Your task to perform on an android device: Go to ESPN.com Image 0: 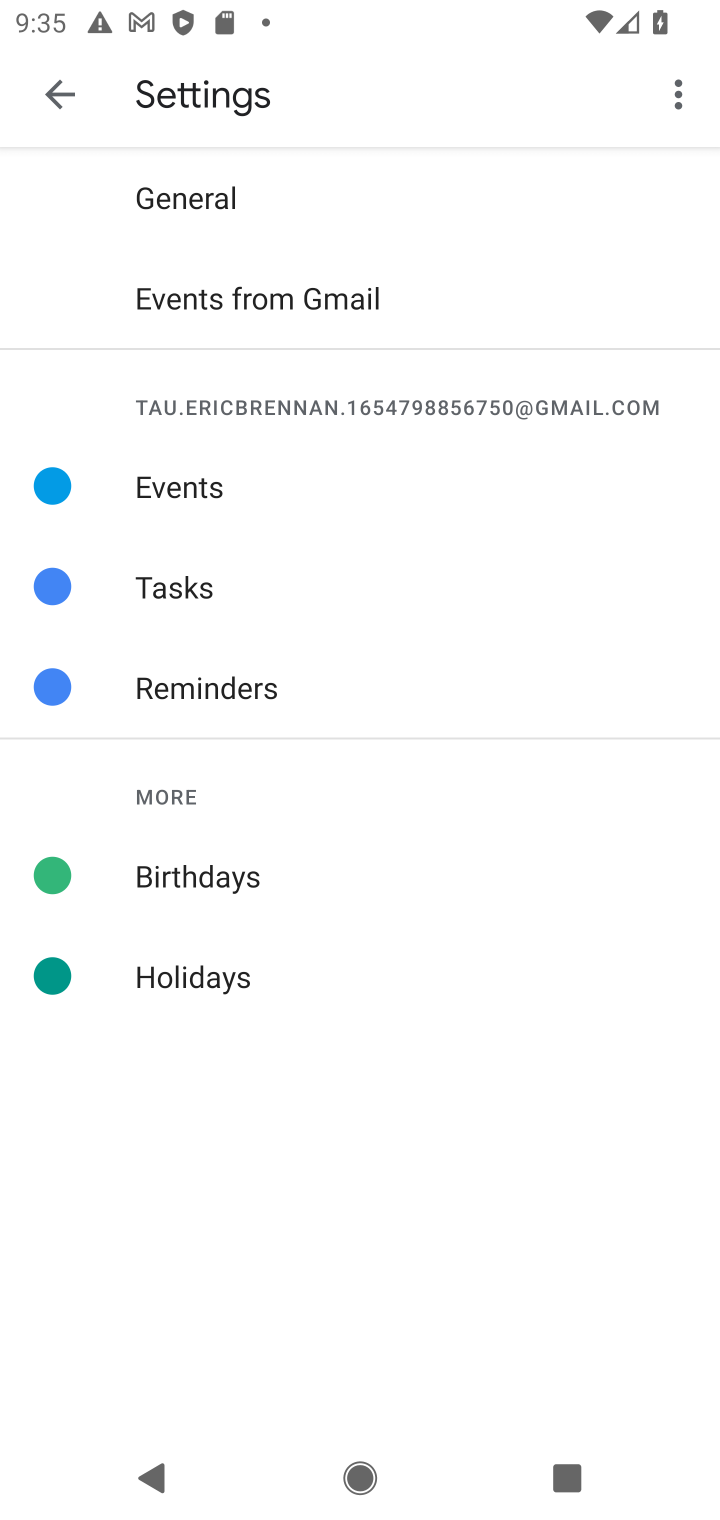
Step 0: press home button
Your task to perform on an android device: Go to ESPN.com Image 1: 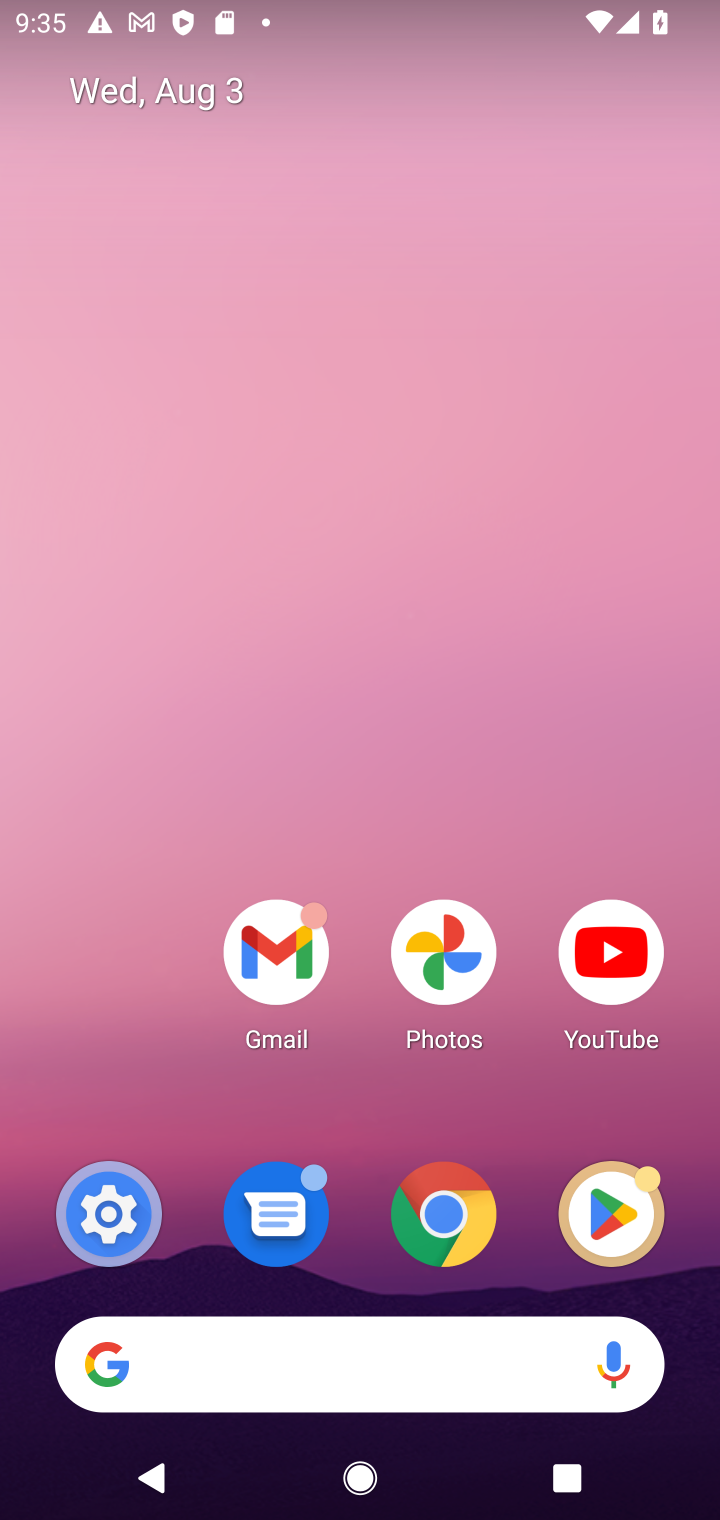
Step 1: click (429, 1213)
Your task to perform on an android device: Go to ESPN.com Image 2: 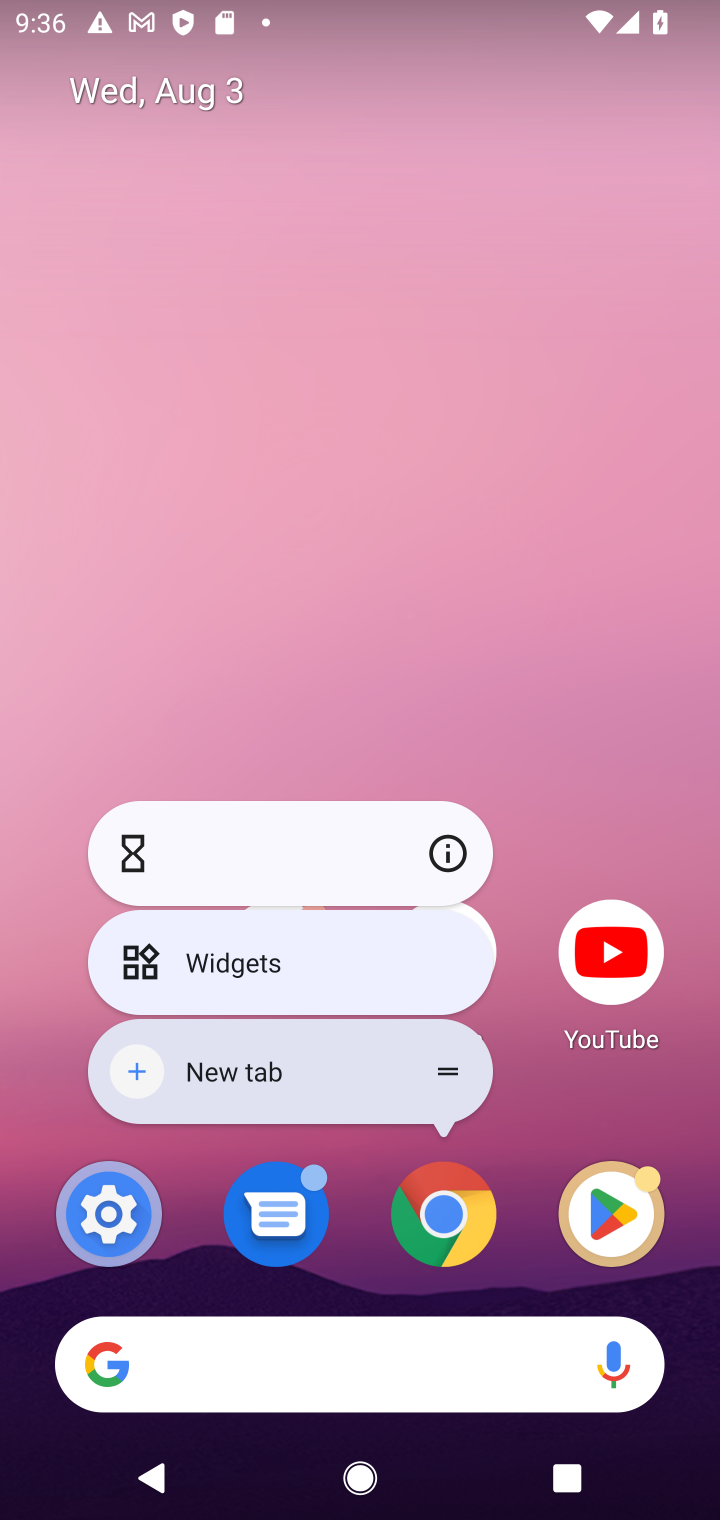
Step 2: click (436, 1210)
Your task to perform on an android device: Go to ESPN.com Image 3: 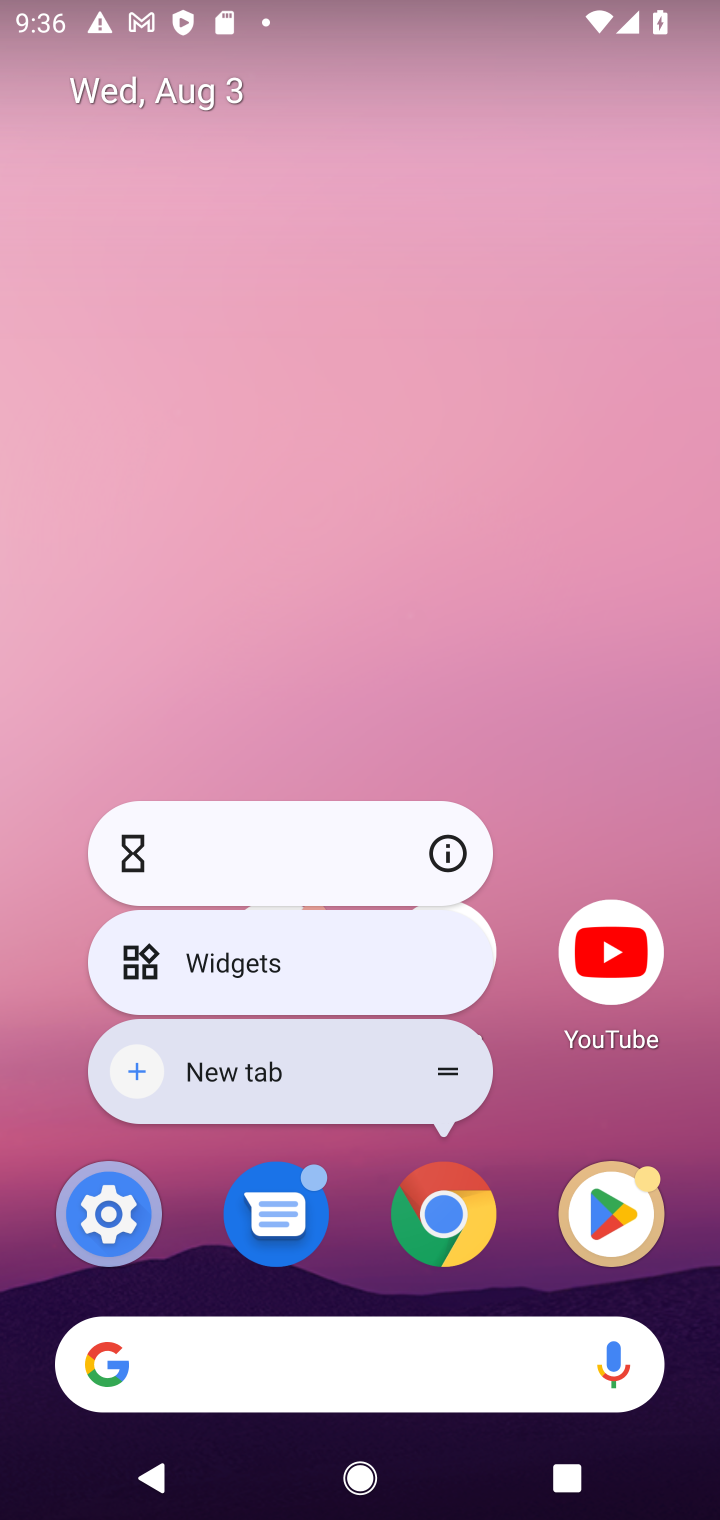
Step 3: click (436, 1210)
Your task to perform on an android device: Go to ESPN.com Image 4: 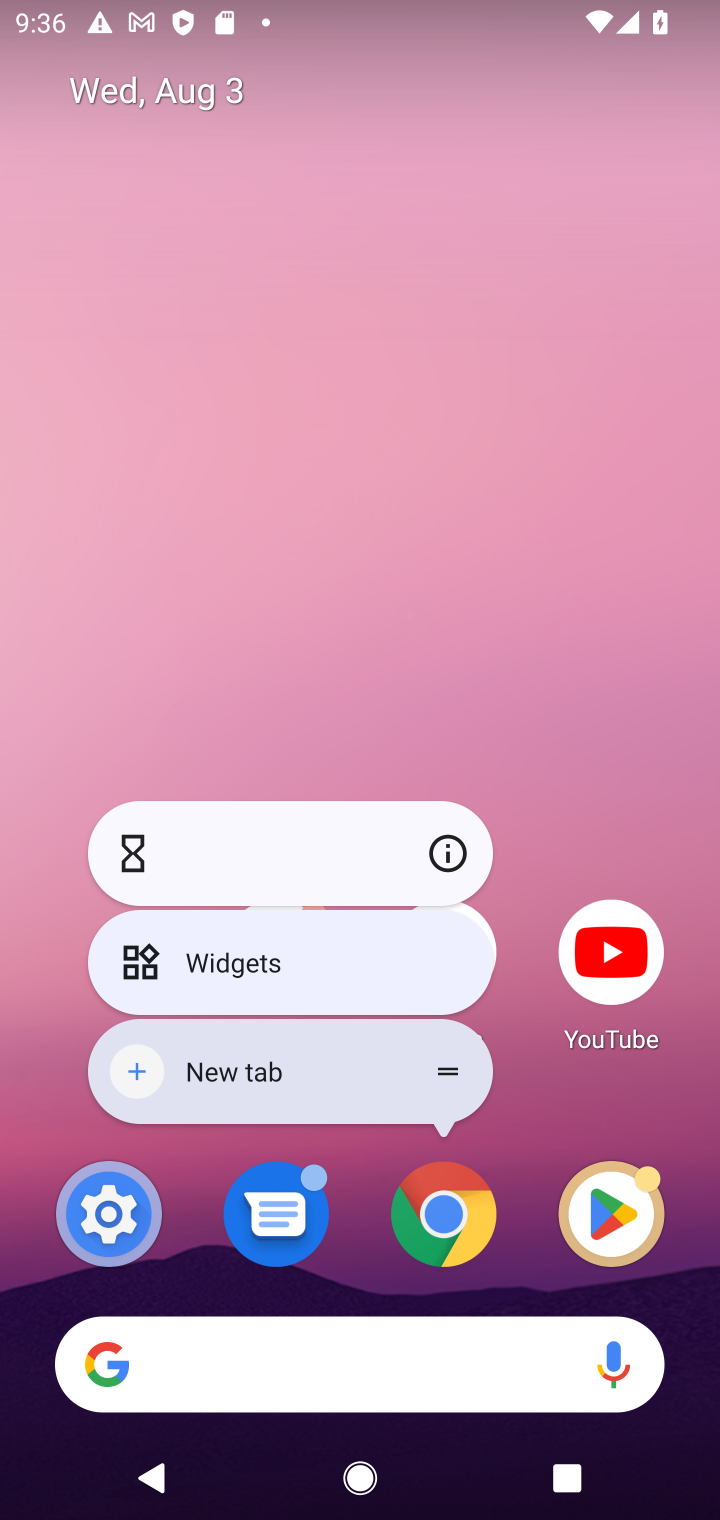
Step 4: click (436, 1210)
Your task to perform on an android device: Go to ESPN.com Image 5: 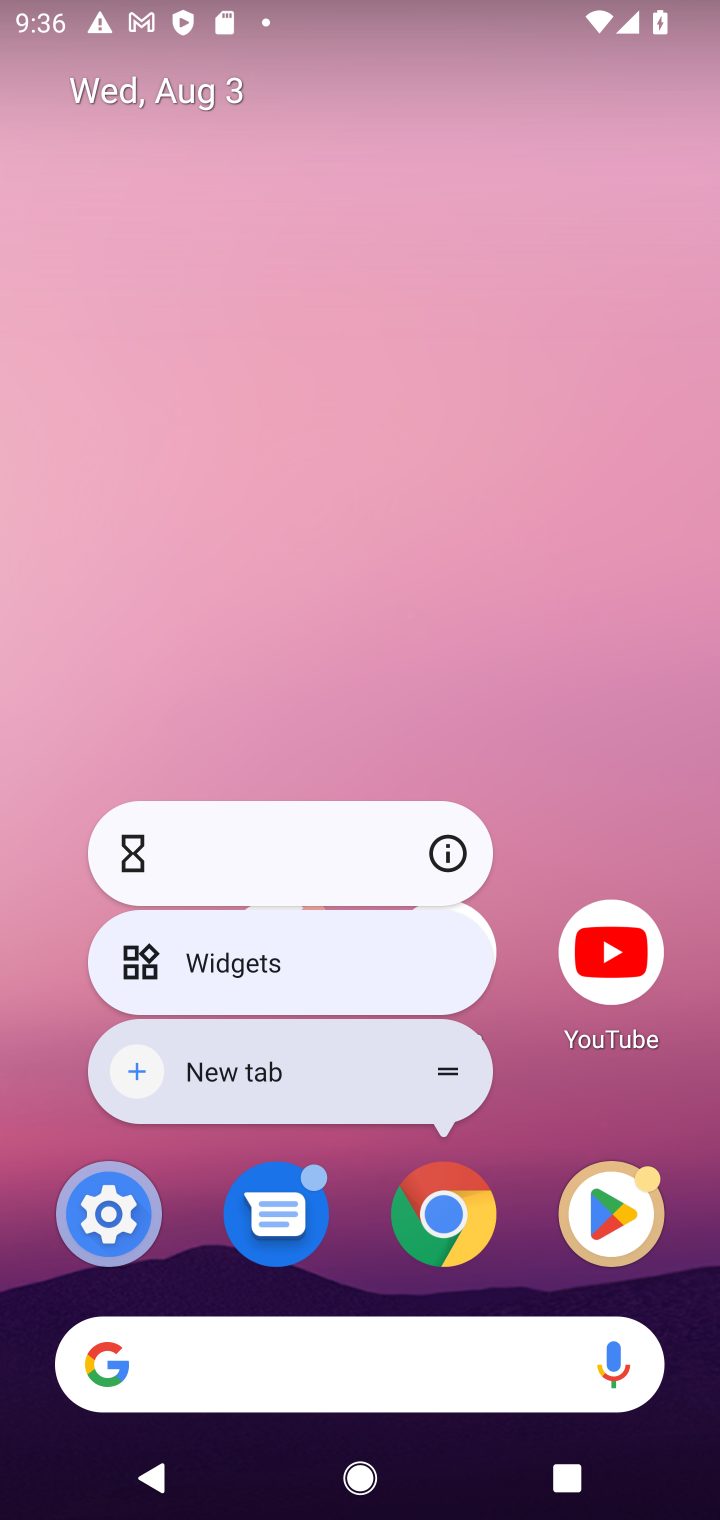
Step 5: click (454, 1223)
Your task to perform on an android device: Go to ESPN.com Image 6: 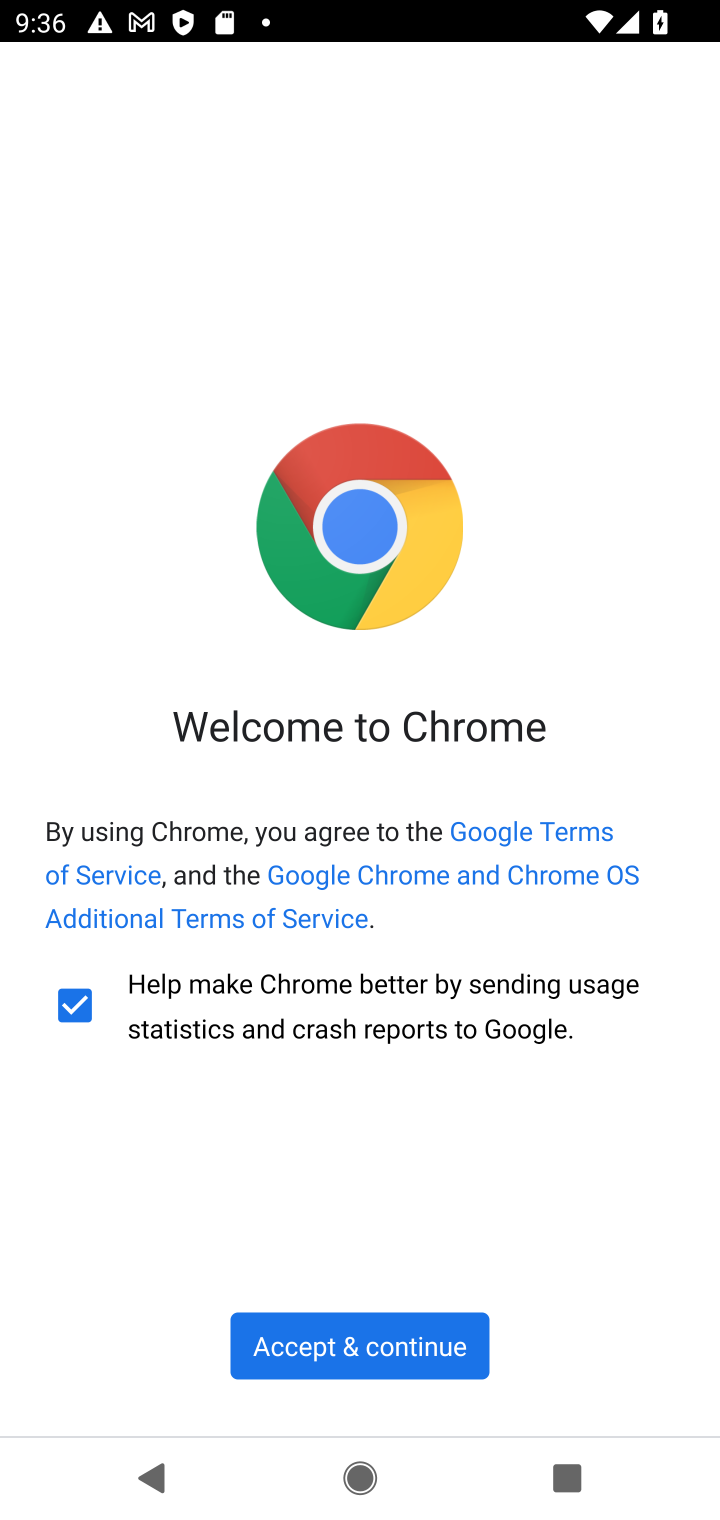
Step 6: click (403, 1328)
Your task to perform on an android device: Go to ESPN.com Image 7: 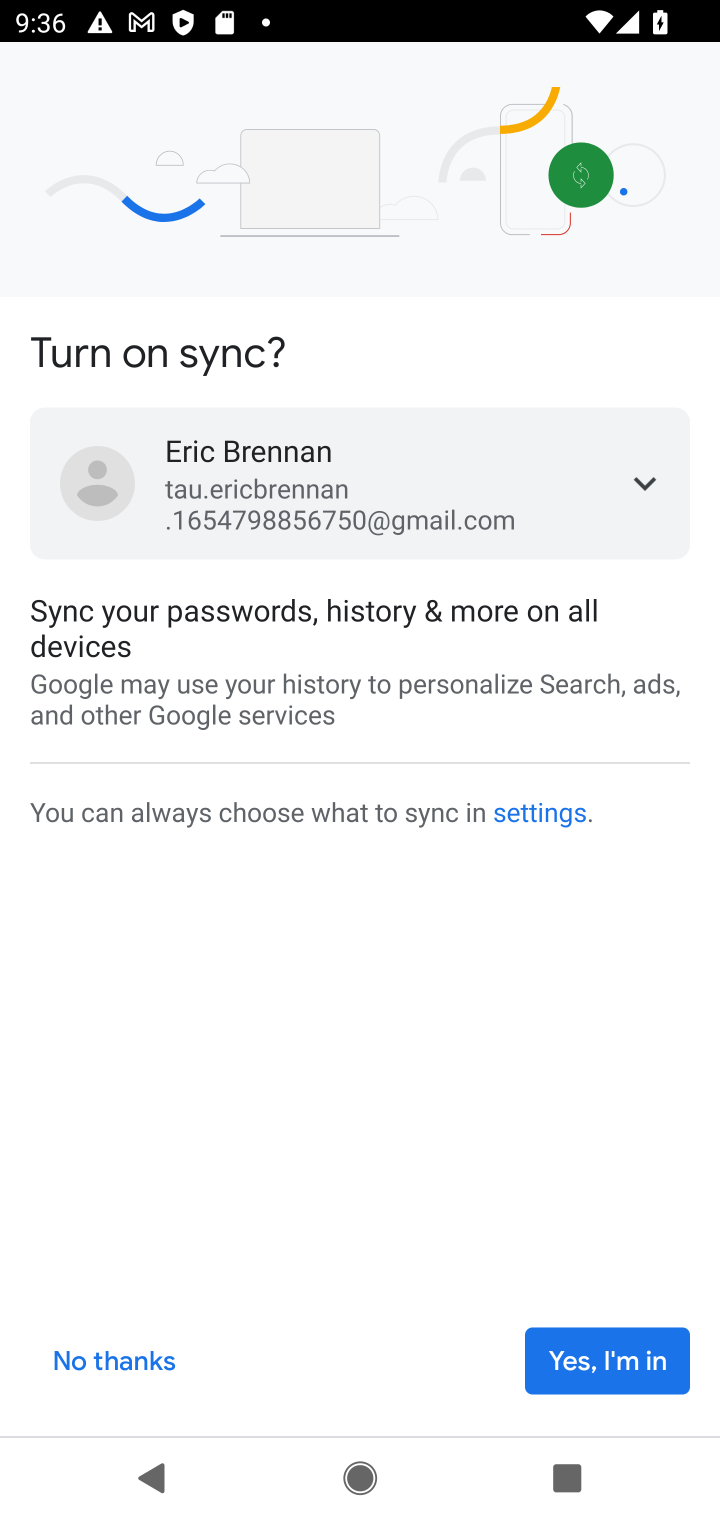
Step 7: click (623, 1345)
Your task to perform on an android device: Go to ESPN.com Image 8: 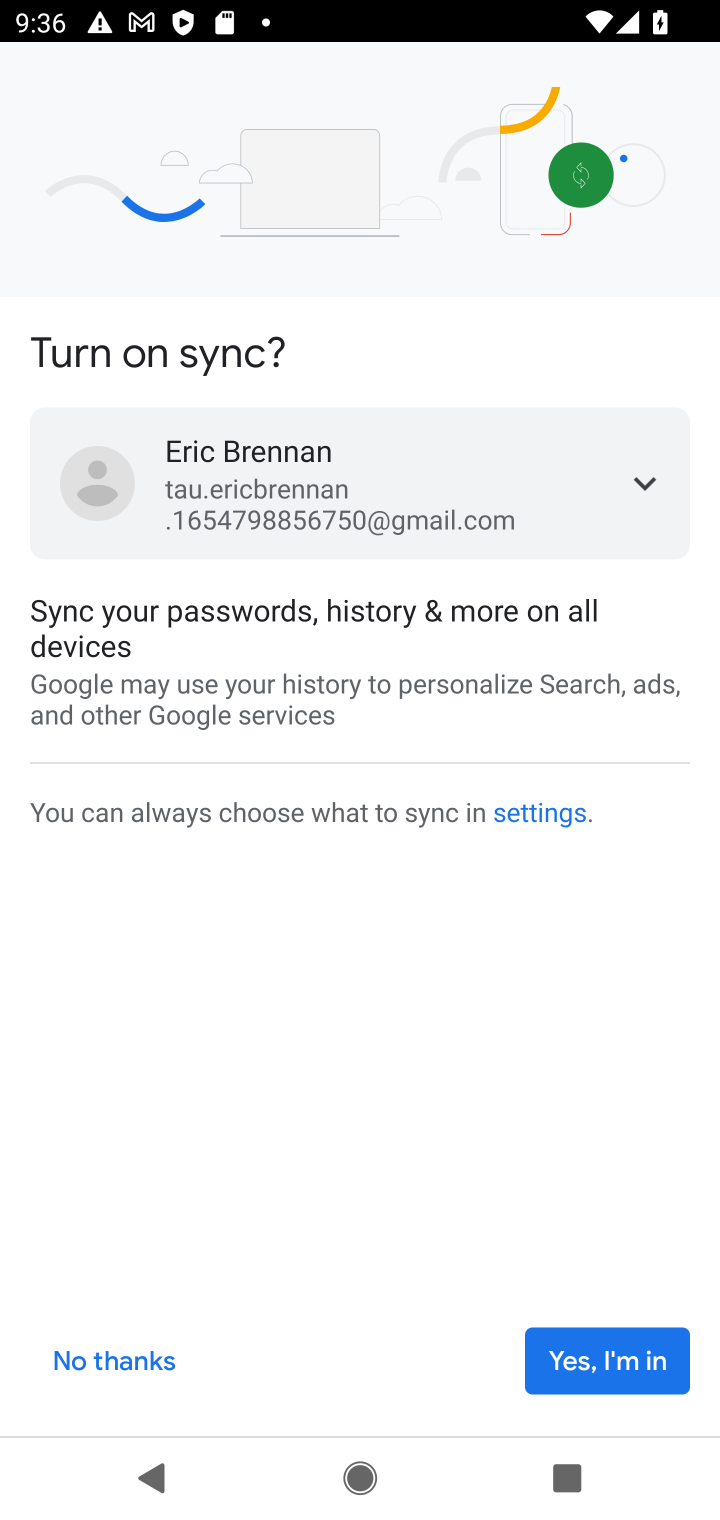
Step 8: click (623, 1345)
Your task to perform on an android device: Go to ESPN.com Image 9: 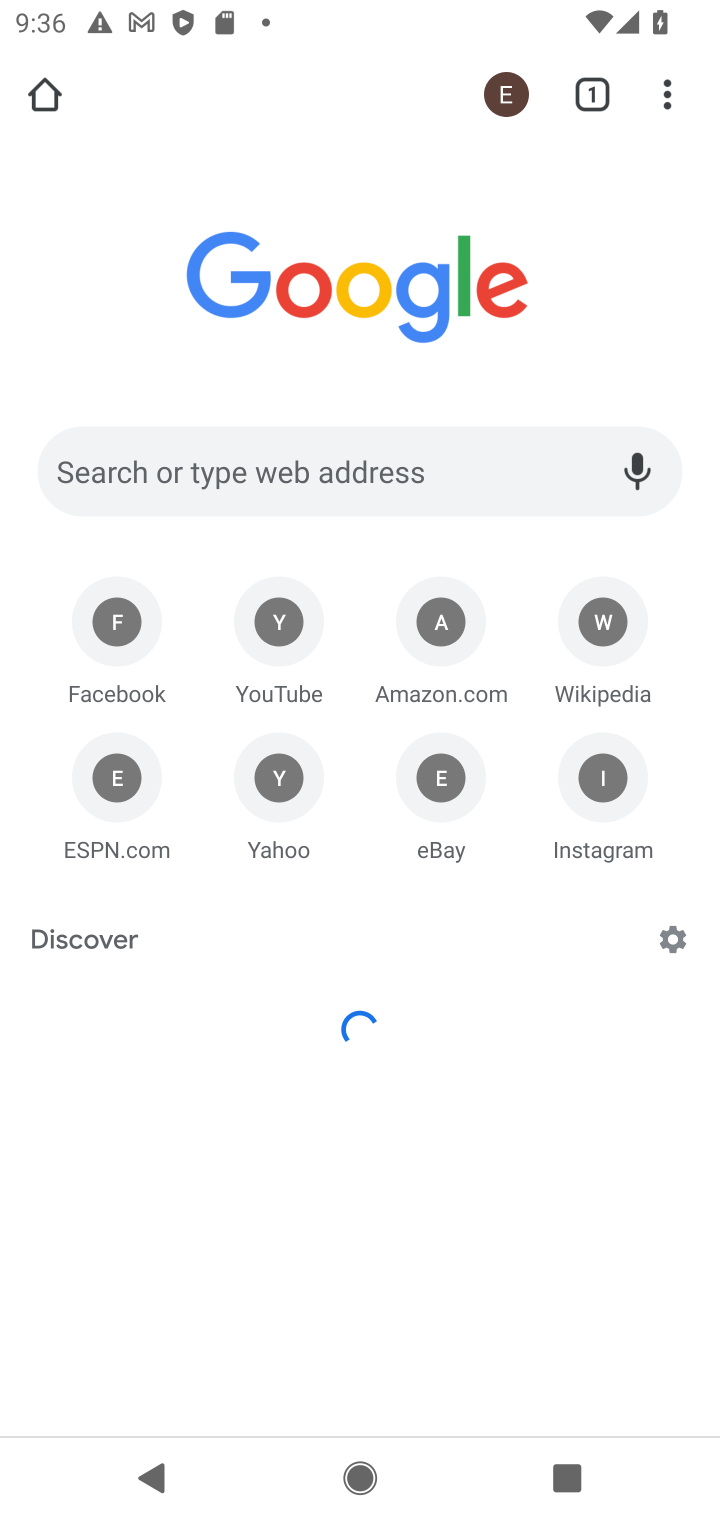
Step 9: click (331, 458)
Your task to perform on an android device: Go to ESPN.com Image 10: 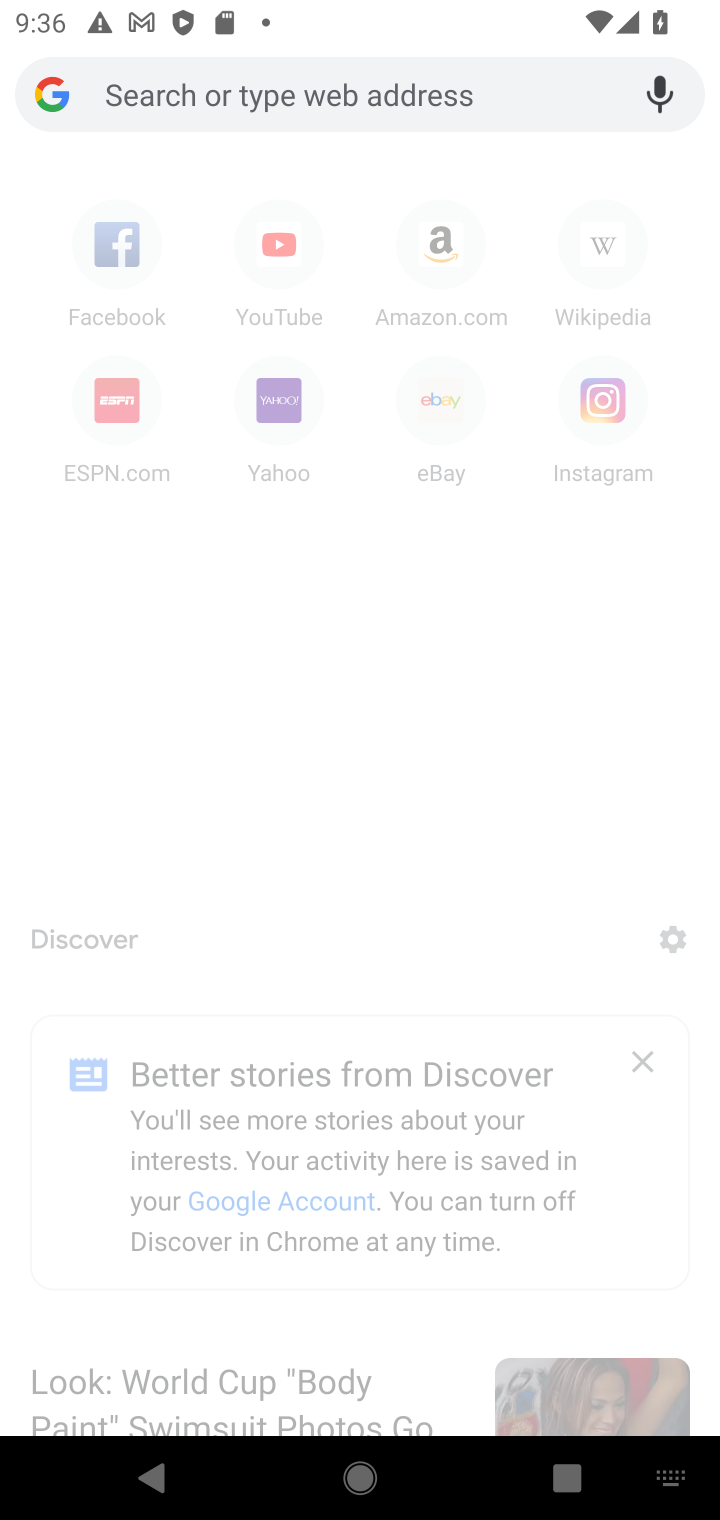
Step 10: type " ESPN.com"
Your task to perform on an android device: Go to ESPN.com Image 11: 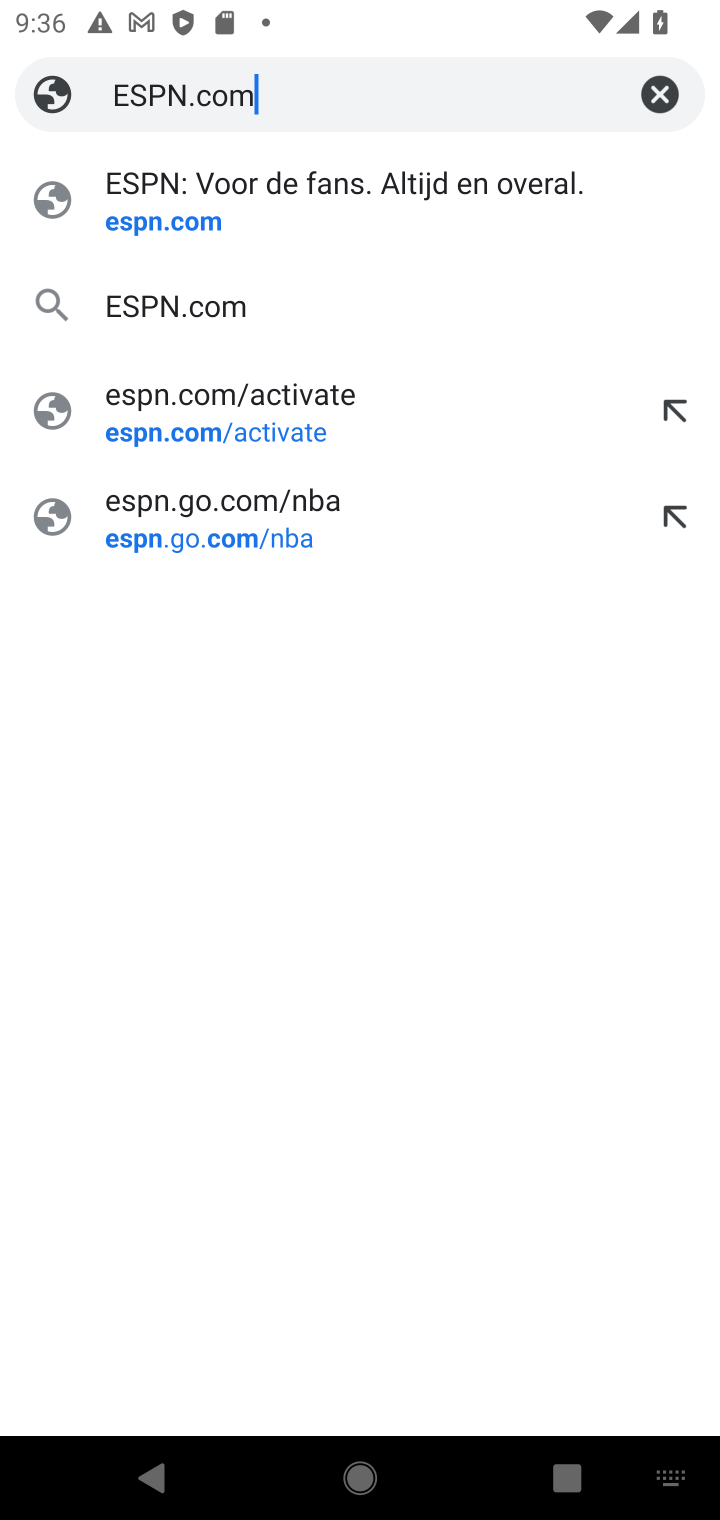
Step 11: click (179, 213)
Your task to perform on an android device: Go to ESPN.com Image 12: 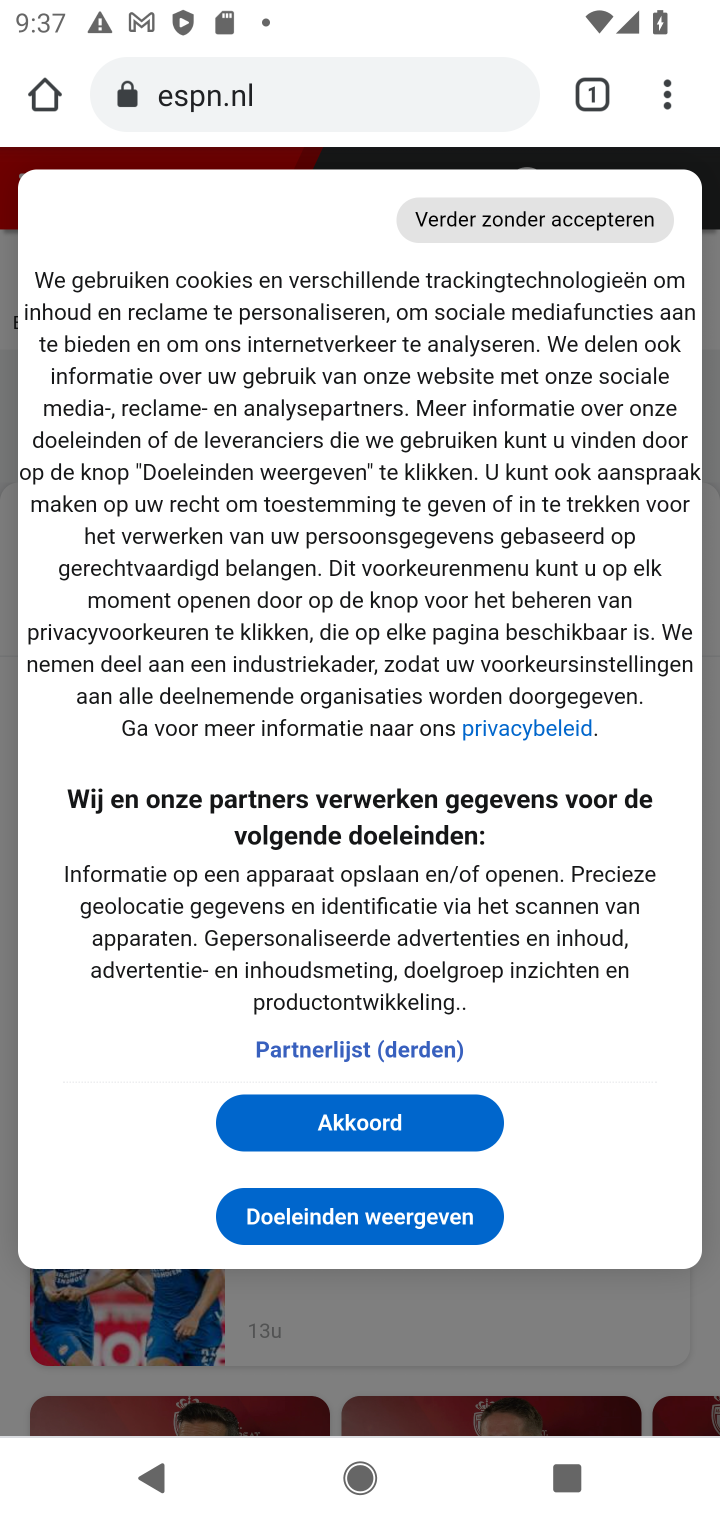
Step 12: task complete